Your task to perform on an android device: turn off location history Image 0: 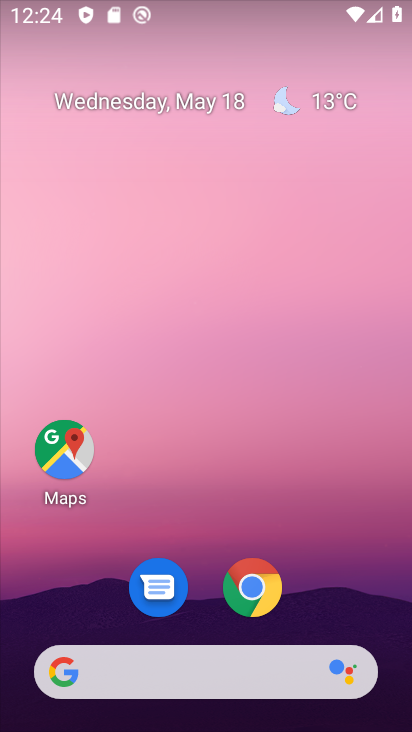
Step 0: drag from (192, 624) to (278, 76)
Your task to perform on an android device: turn off location history Image 1: 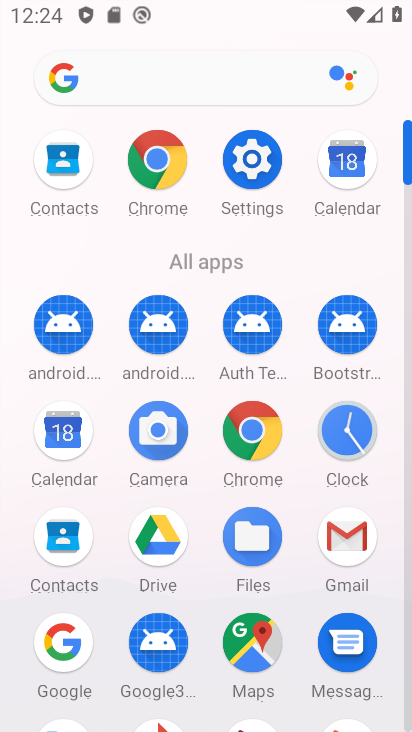
Step 1: click (260, 164)
Your task to perform on an android device: turn off location history Image 2: 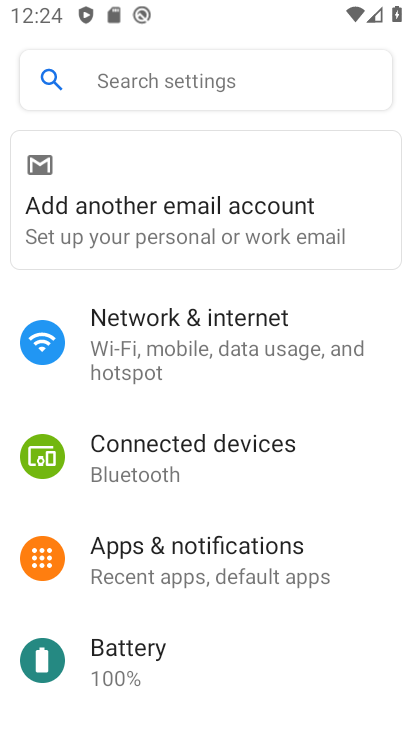
Step 2: drag from (173, 626) to (256, 149)
Your task to perform on an android device: turn off location history Image 3: 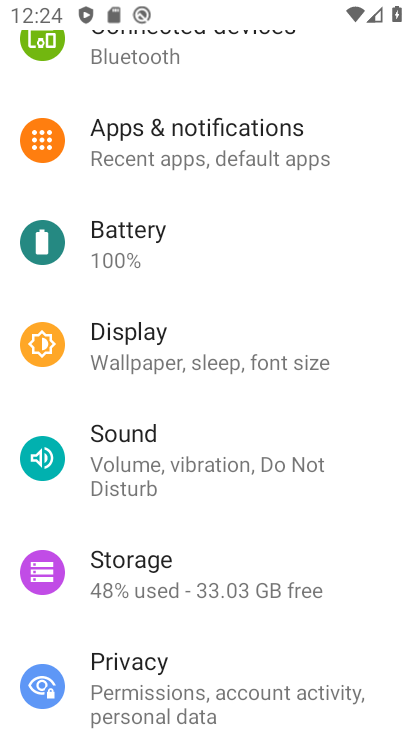
Step 3: drag from (215, 634) to (257, 259)
Your task to perform on an android device: turn off location history Image 4: 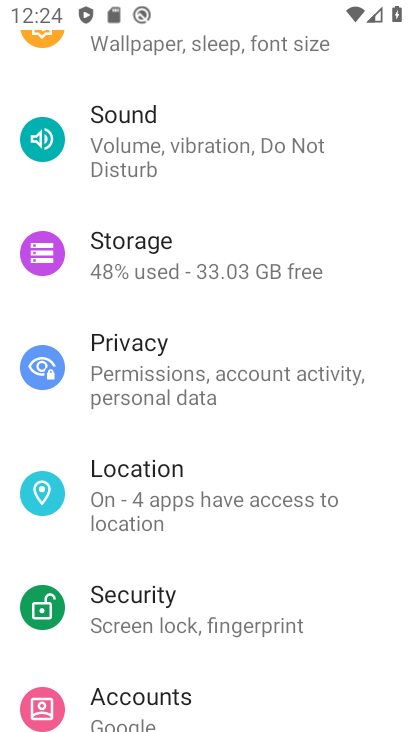
Step 4: click (188, 503)
Your task to perform on an android device: turn off location history Image 5: 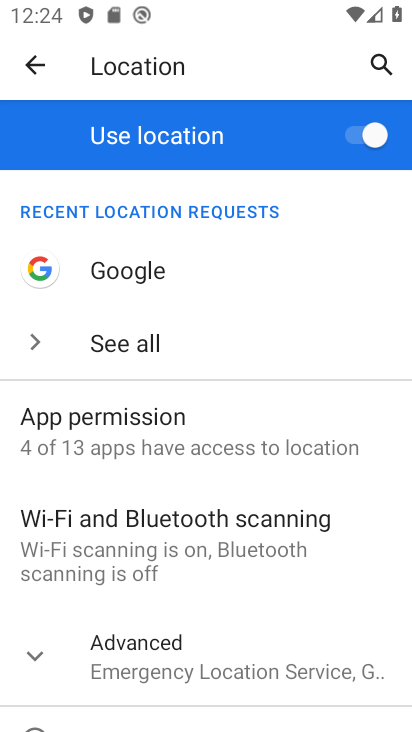
Step 5: click (143, 657)
Your task to perform on an android device: turn off location history Image 6: 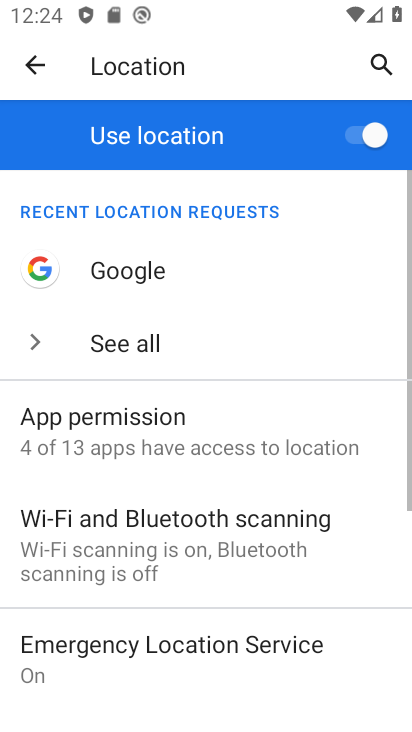
Step 6: drag from (144, 663) to (230, 294)
Your task to perform on an android device: turn off location history Image 7: 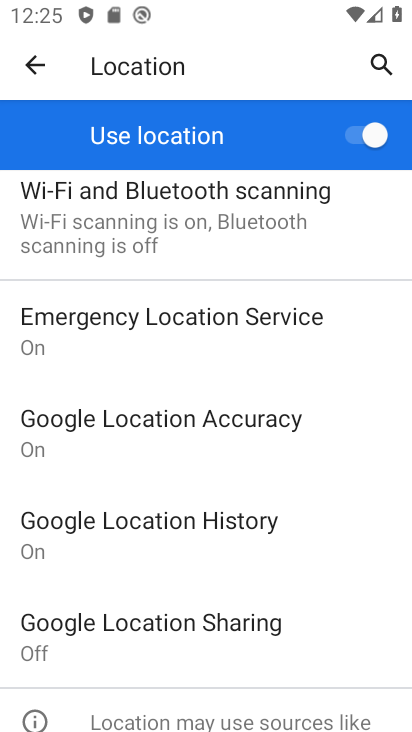
Step 7: click (141, 518)
Your task to perform on an android device: turn off location history Image 8: 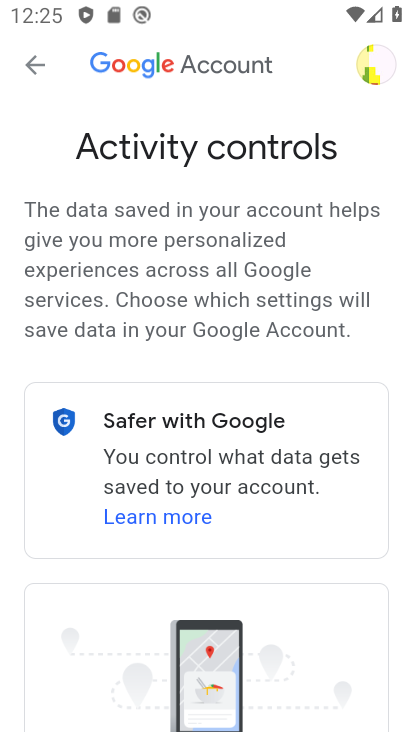
Step 8: drag from (215, 592) to (274, 96)
Your task to perform on an android device: turn off location history Image 9: 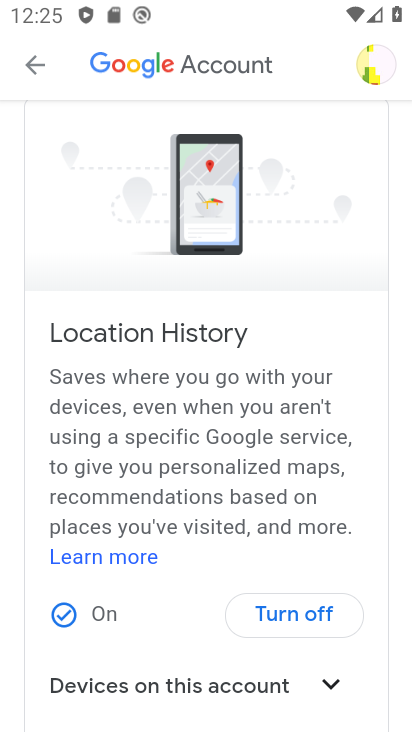
Step 9: click (280, 616)
Your task to perform on an android device: turn off location history Image 10: 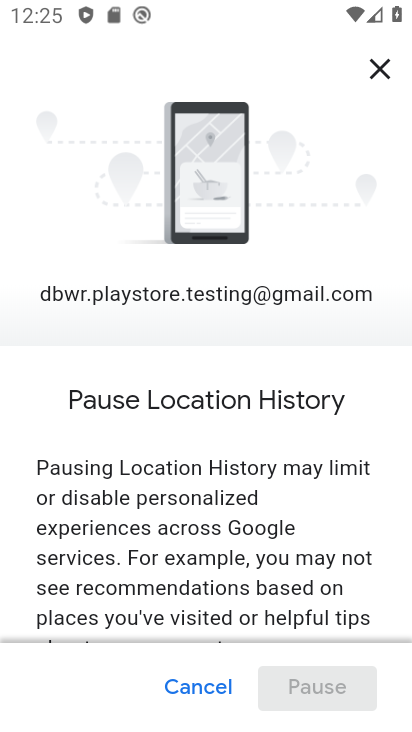
Step 10: drag from (274, 589) to (318, 25)
Your task to perform on an android device: turn off location history Image 11: 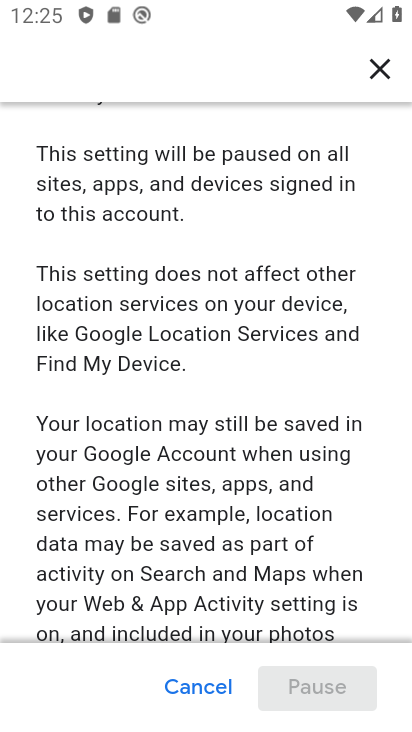
Step 11: drag from (204, 535) to (260, 76)
Your task to perform on an android device: turn off location history Image 12: 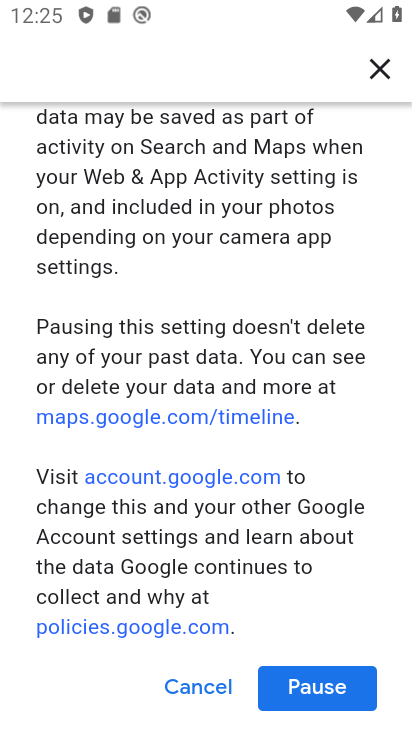
Step 12: drag from (236, 590) to (297, 131)
Your task to perform on an android device: turn off location history Image 13: 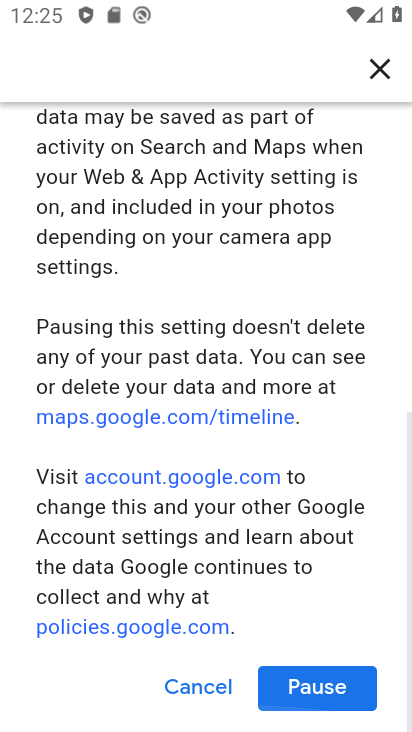
Step 13: click (334, 694)
Your task to perform on an android device: turn off location history Image 14: 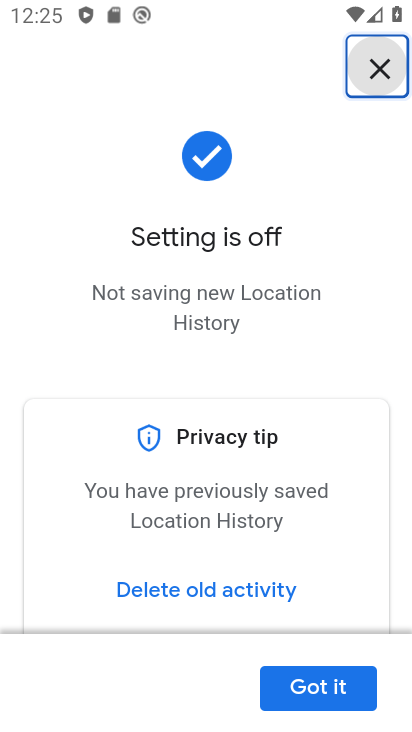
Step 14: task complete